Your task to perform on an android device: Open calendar and show me the fourth week of next month Image 0: 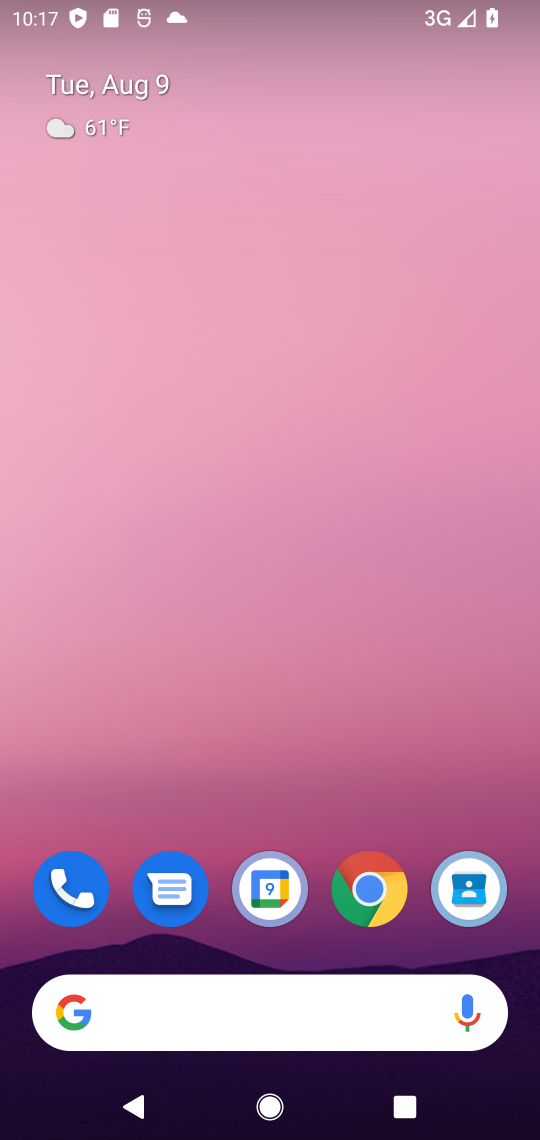
Step 0: drag from (253, 880) to (376, 232)
Your task to perform on an android device: Open calendar and show me the fourth week of next month Image 1: 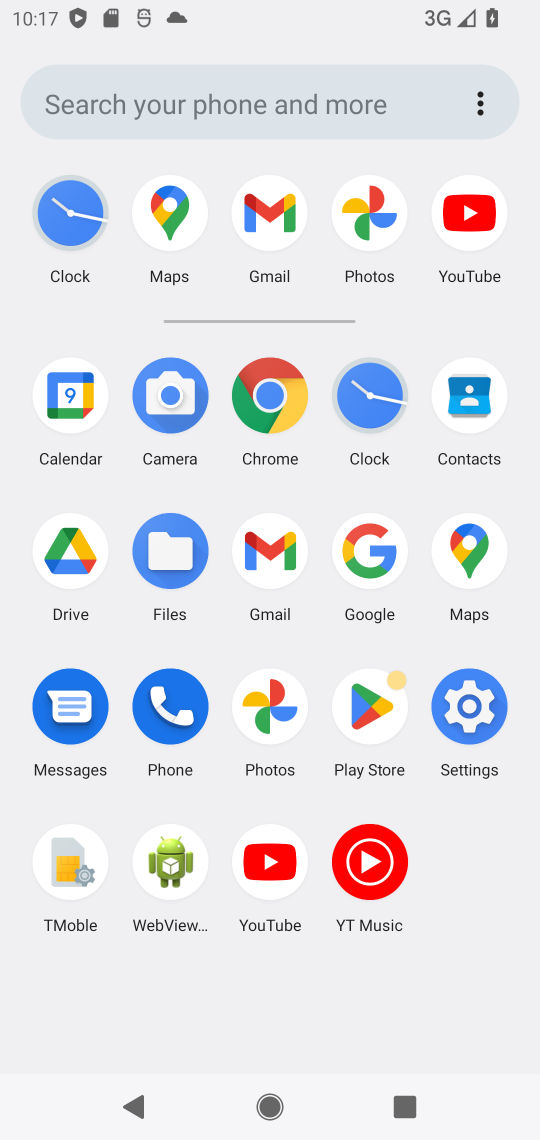
Step 1: click (73, 411)
Your task to perform on an android device: Open calendar and show me the fourth week of next month Image 2: 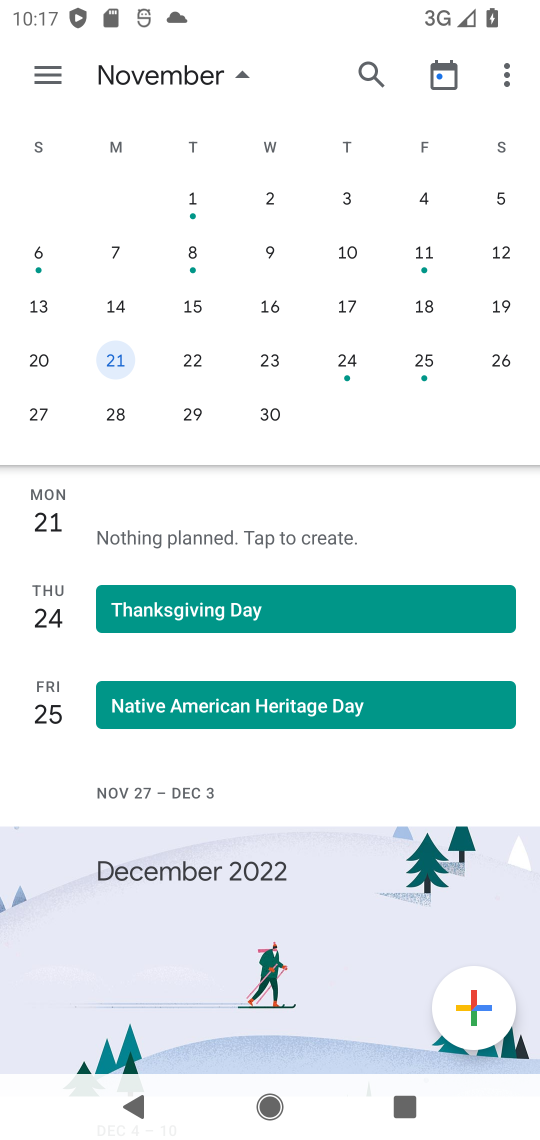
Step 2: drag from (456, 322) to (14, 348)
Your task to perform on an android device: Open calendar and show me the fourth week of next month Image 3: 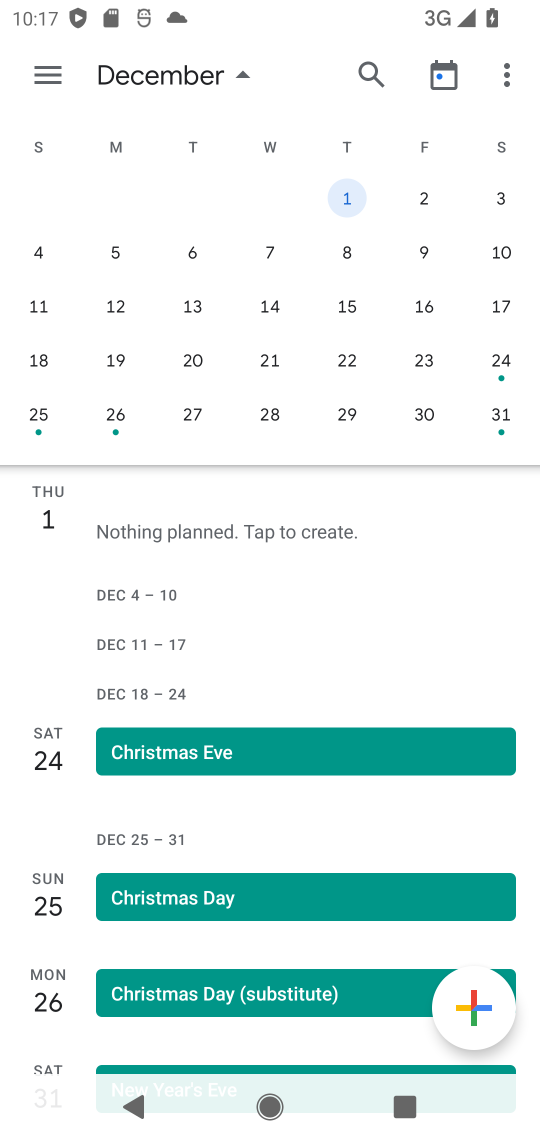
Step 3: click (274, 408)
Your task to perform on an android device: Open calendar and show me the fourth week of next month Image 4: 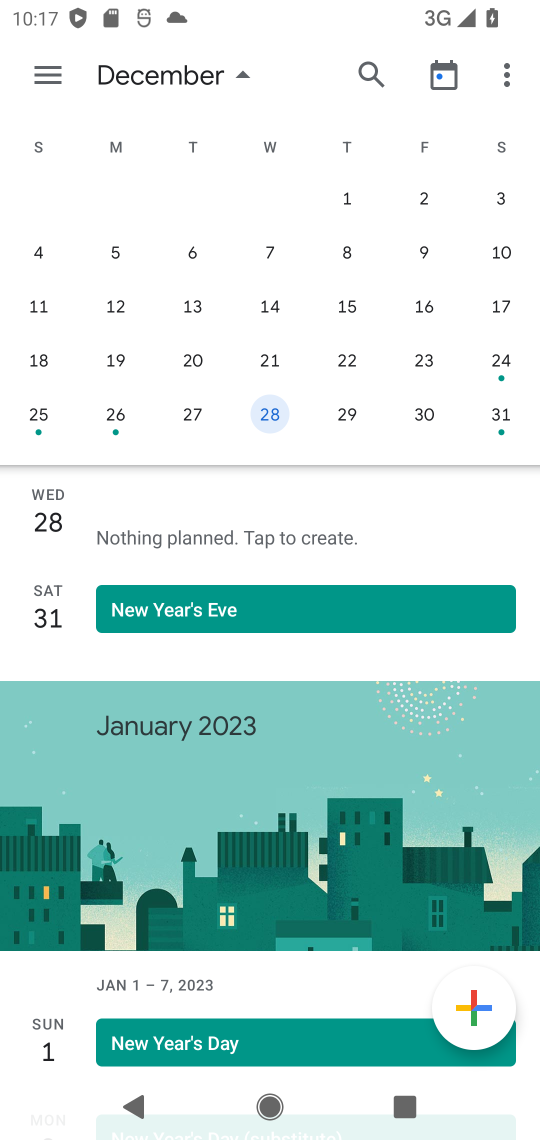
Step 4: task complete